Your task to perform on an android device: turn on the 12-hour format for clock Image 0: 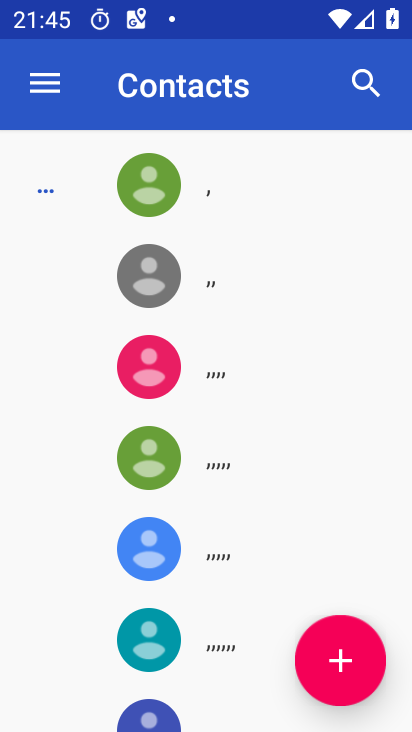
Step 0: press home button
Your task to perform on an android device: turn on the 12-hour format for clock Image 1: 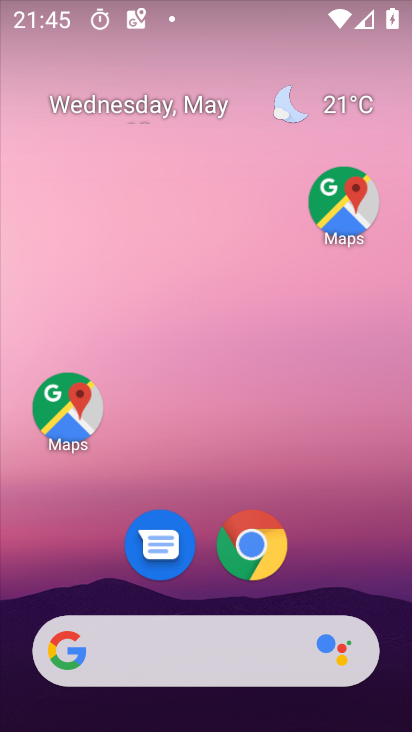
Step 1: drag from (300, 593) to (273, 30)
Your task to perform on an android device: turn on the 12-hour format for clock Image 2: 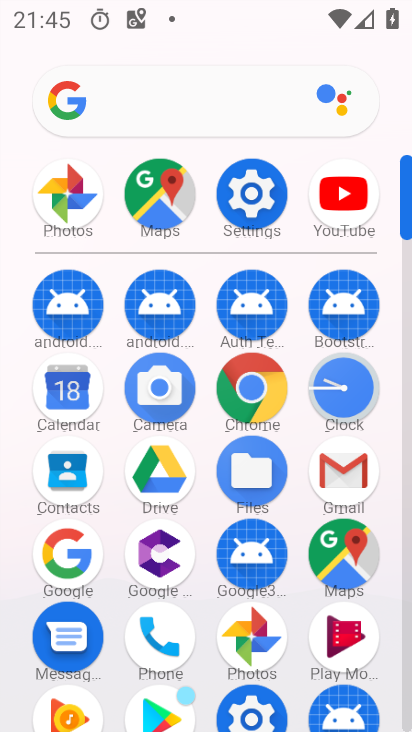
Step 2: click (324, 386)
Your task to perform on an android device: turn on the 12-hour format for clock Image 3: 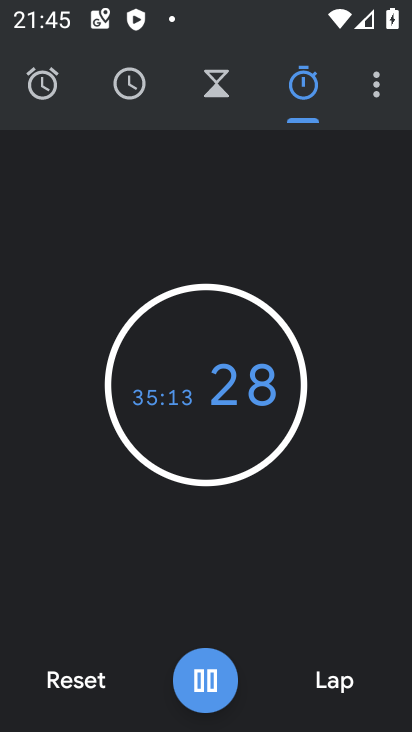
Step 3: click (380, 93)
Your task to perform on an android device: turn on the 12-hour format for clock Image 4: 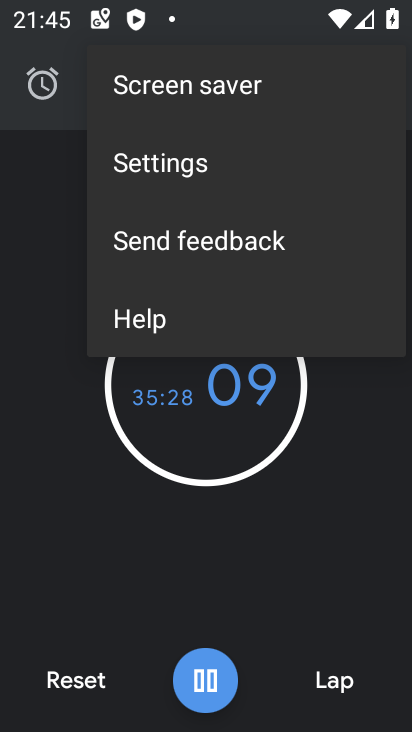
Step 4: click (228, 159)
Your task to perform on an android device: turn on the 12-hour format for clock Image 5: 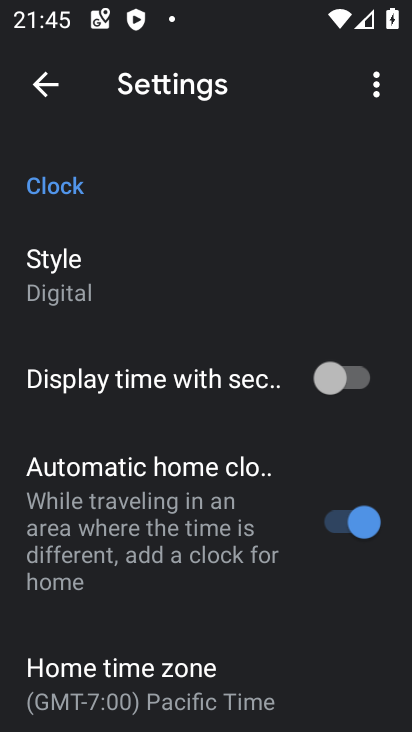
Step 5: drag from (205, 522) to (195, 327)
Your task to perform on an android device: turn on the 12-hour format for clock Image 6: 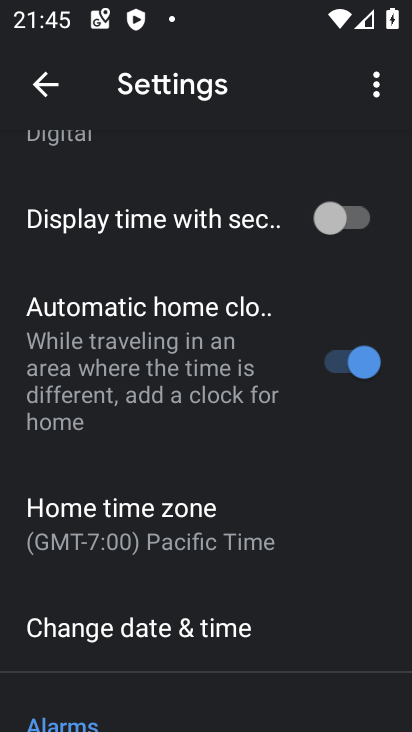
Step 6: drag from (221, 627) to (188, 463)
Your task to perform on an android device: turn on the 12-hour format for clock Image 7: 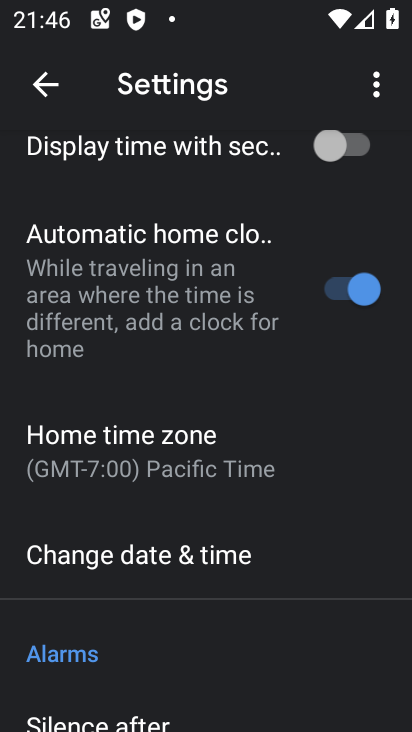
Step 7: click (148, 562)
Your task to perform on an android device: turn on the 12-hour format for clock Image 8: 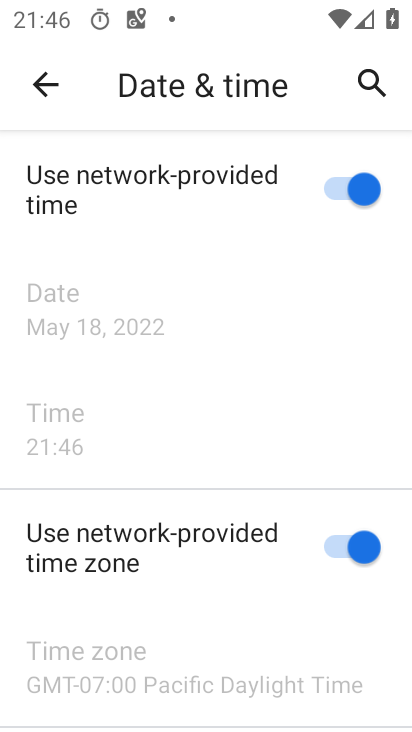
Step 8: drag from (154, 612) to (145, 268)
Your task to perform on an android device: turn on the 12-hour format for clock Image 9: 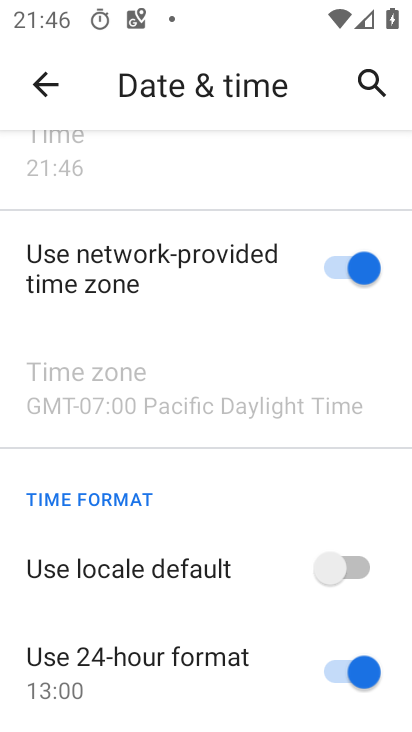
Step 9: click (325, 564)
Your task to perform on an android device: turn on the 12-hour format for clock Image 10: 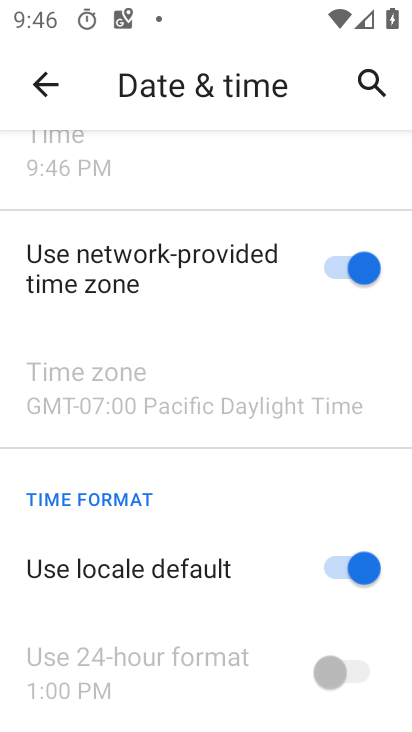
Step 10: task complete